Your task to perform on an android device: Show me popular games on the Play Store Image 0: 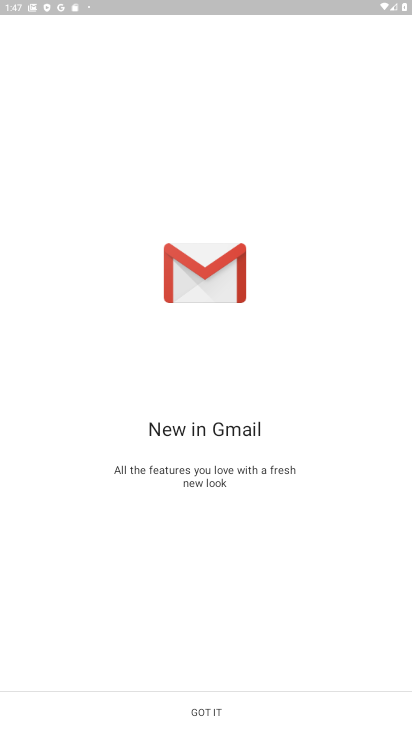
Step 0: press home button
Your task to perform on an android device: Show me popular games on the Play Store Image 1: 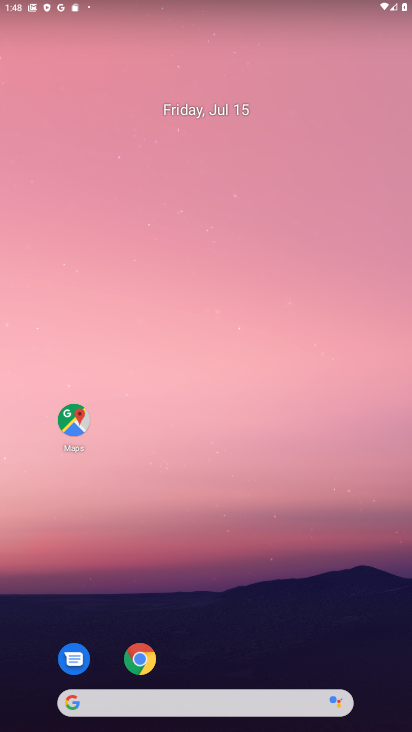
Step 1: drag from (286, 633) to (220, 175)
Your task to perform on an android device: Show me popular games on the Play Store Image 2: 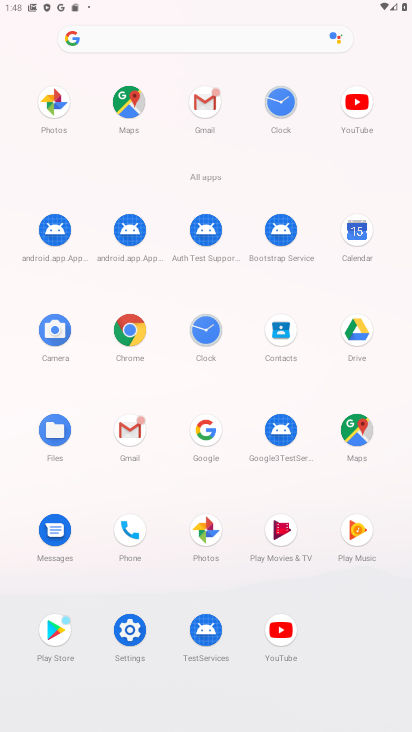
Step 2: click (55, 618)
Your task to perform on an android device: Show me popular games on the Play Store Image 3: 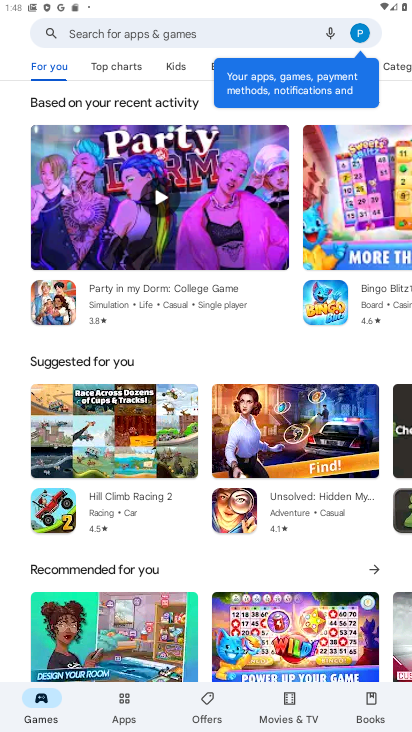
Step 3: drag from (261, 567) to (249, 201)
Your task to perform on an android device: Show me popular games on the Play Store Image 4: 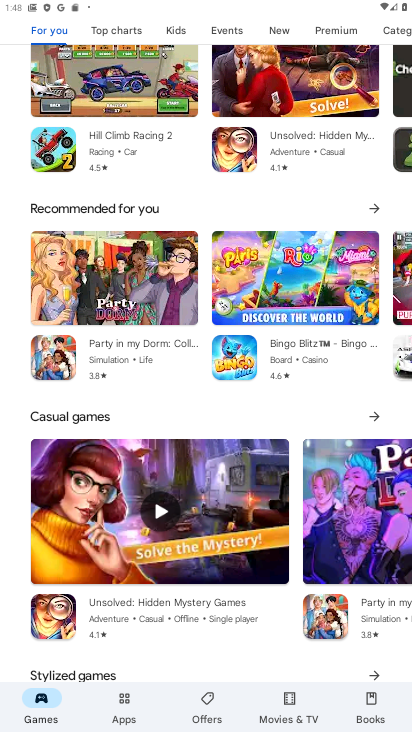
Step 4: drag from (254, 664) to (162, 146)
Your task to perform on an android device: Show me popular games on the Play Store Image 5: 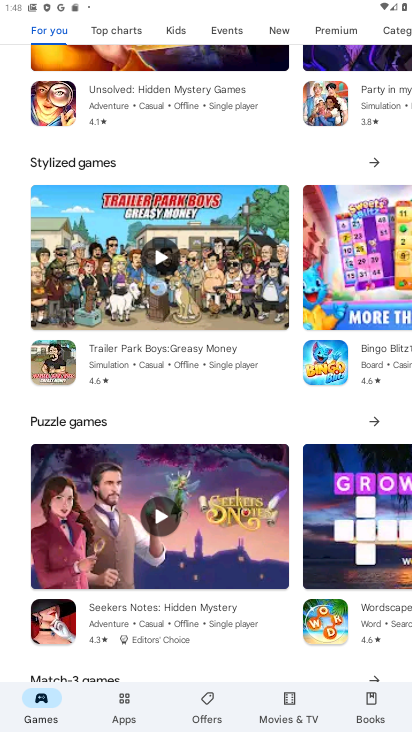
Step 5: drag from (286, 666) to (192, 195)
Your task to perform on an android device: Show me popular games on the Play Store Image 6: 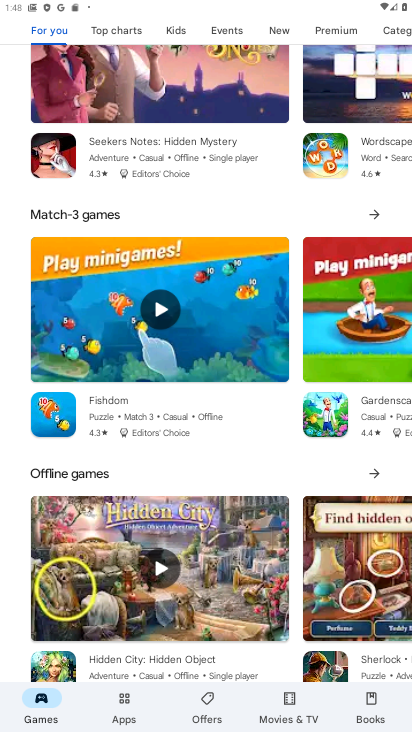
Step 6: drag from (374, 24) to (79, 50)
Your task to perform on an android device: Show me popular games on the Play Store Image 7: 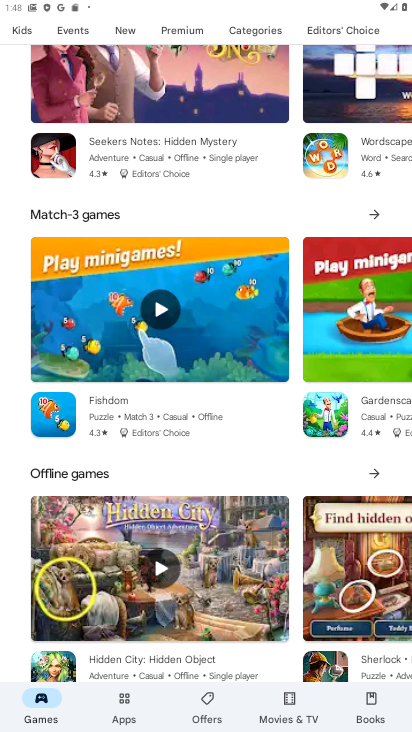
Step 7: click (268, 26)
Your task to perform on an android device: Show me popular games on the Play Store Image 8: 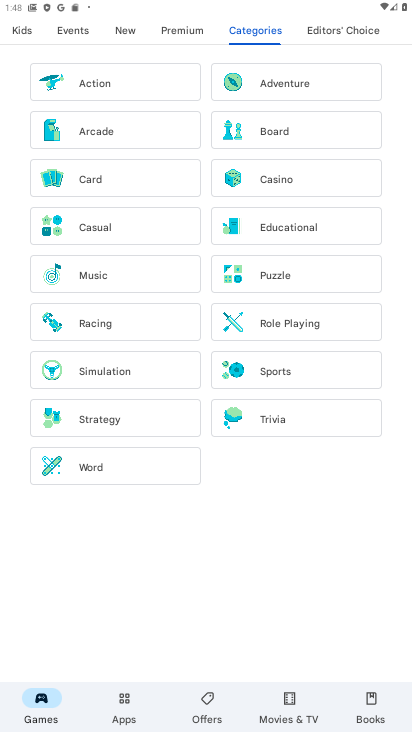
Step 8: task complete